Your task to perform on an android device: set an alarm Image 0: 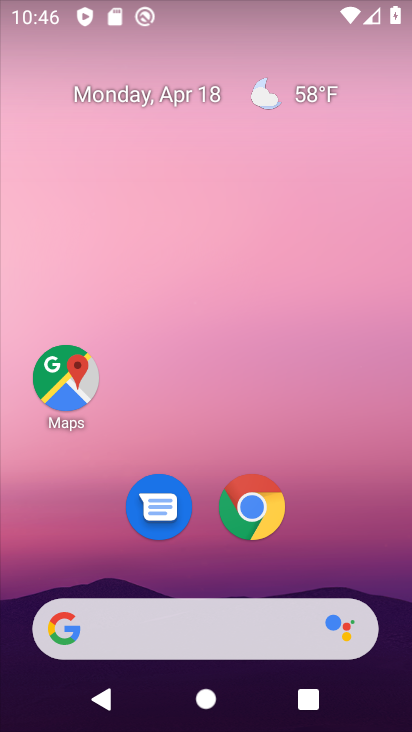
Step 0: drag from (200, 457) to (222, 1)
Your task to perform on an android device: set an alarm Image 1: 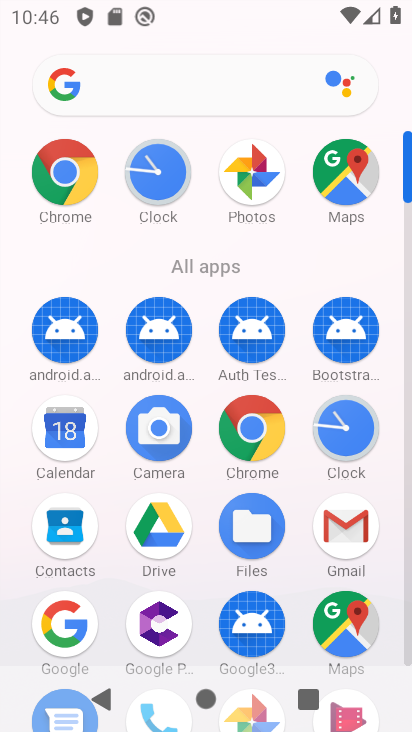
Step 1: click (342, 433)
Your task to perform on an android device: set an alarm Image 2: 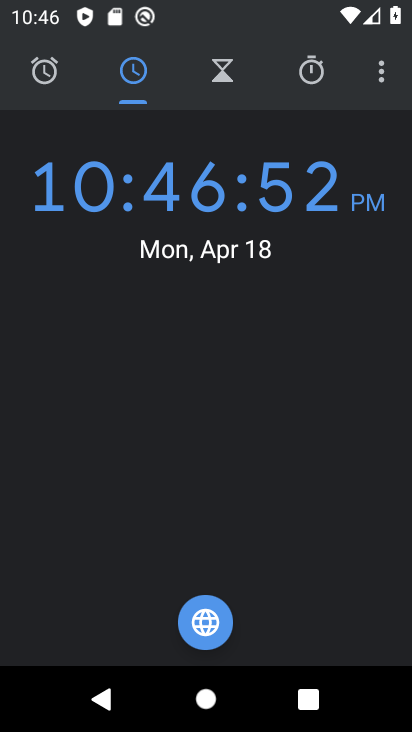
Step 2: click (40, 78)
Your task to perform on an android device: set an alarm Image 3: 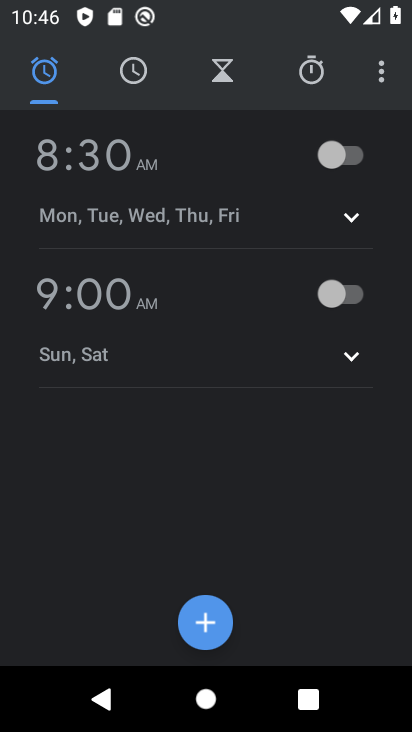
Step 3: click (366, 297)
Your task to perform on an android device: set an alarm Image 4: 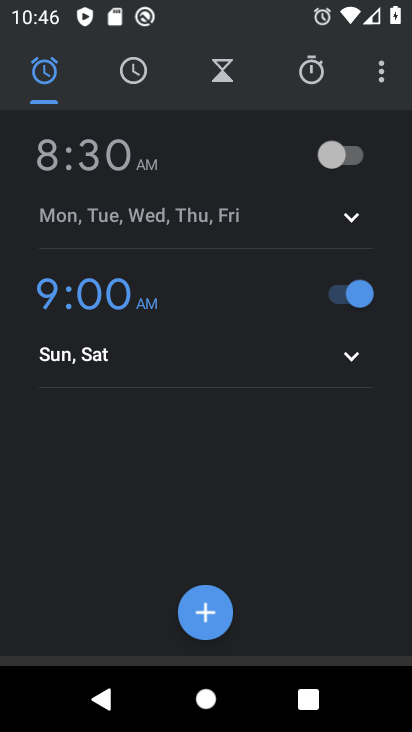
Step 4: task complete